Your task to perform on an android device: check google app version Image 0: 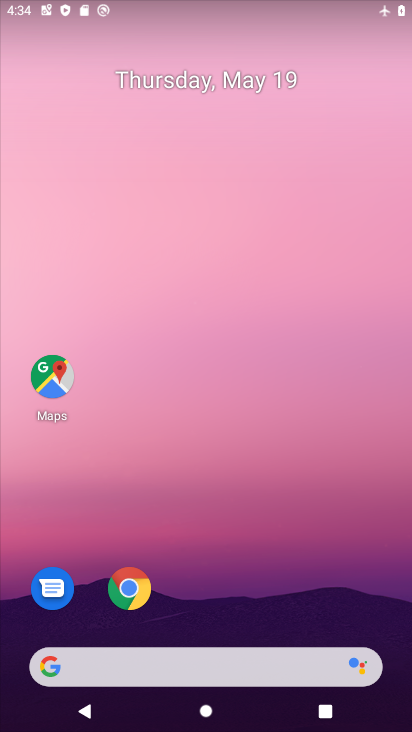
Step 0: click (156, 672)
Your task to perform on an android device: check google app version Image 1: 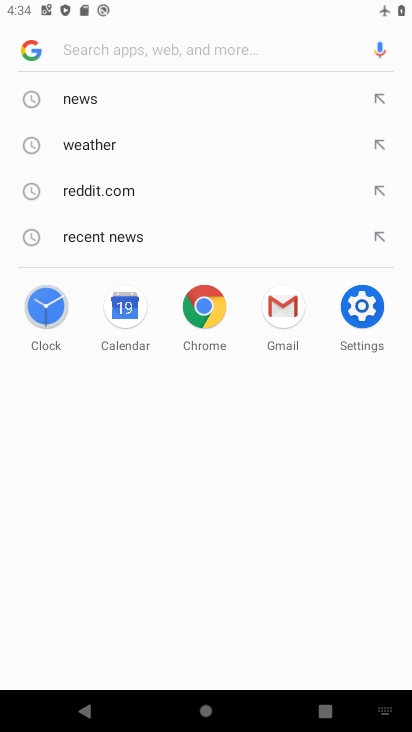
Step 1: click (37, 48)
Your task to perform on an android device: check google app version Image 2: 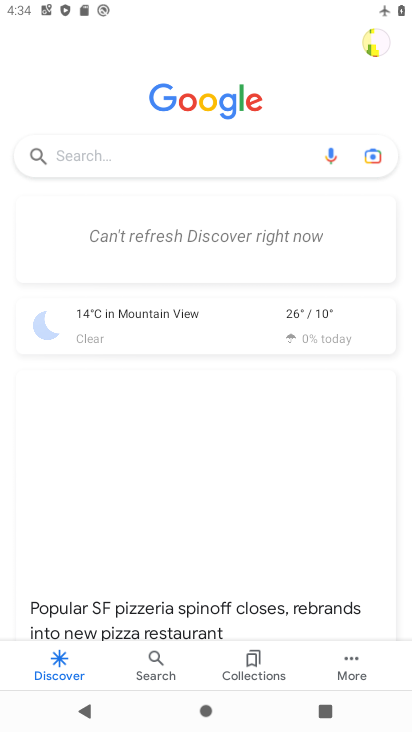
Step 2: click (357, 663)
Your task to perform on an android device: check google app version Image 3: 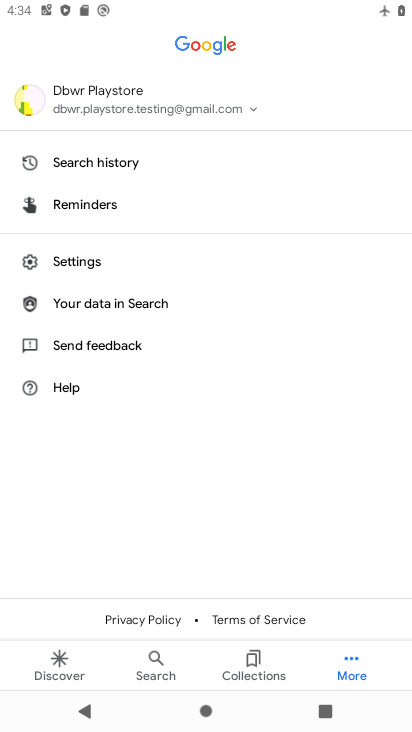
Step 3: click (71, 258)
Your task to perform on an android device: check google app version Image 4: 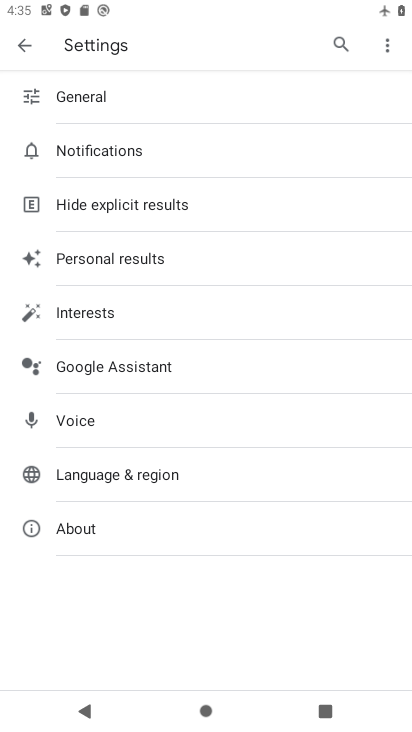
Step 4: click (97, 534)
Your task to perform on an android device: check google app version Image 5: 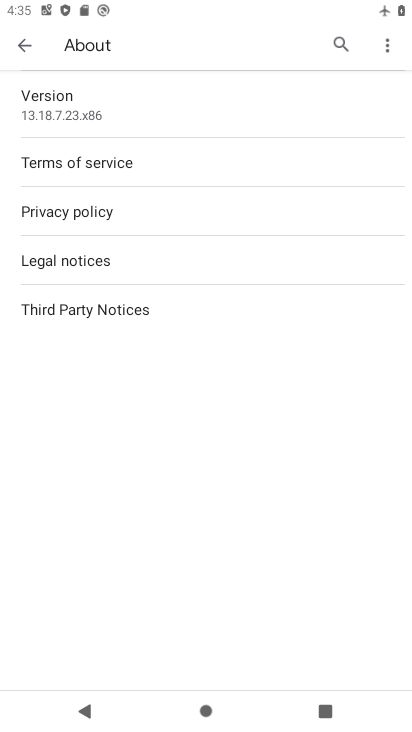
Step 5: task complete